Your task to perform on an android device: turn on notifications settings in the gmail app Image 0: 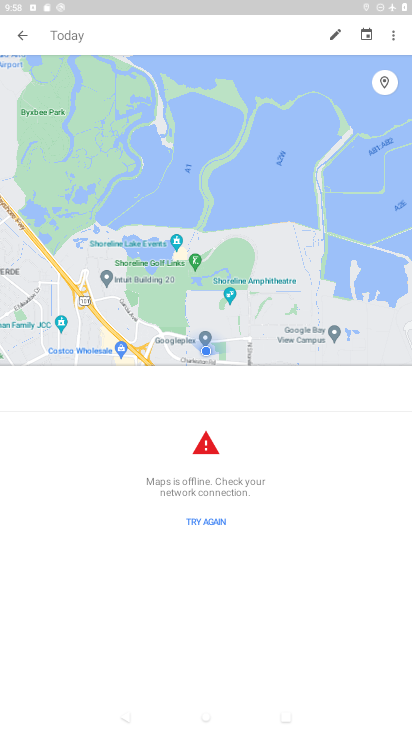
Step 0: press home button
Your task to perform on an android device: turn on notifications settings in the gmail app Image 1: 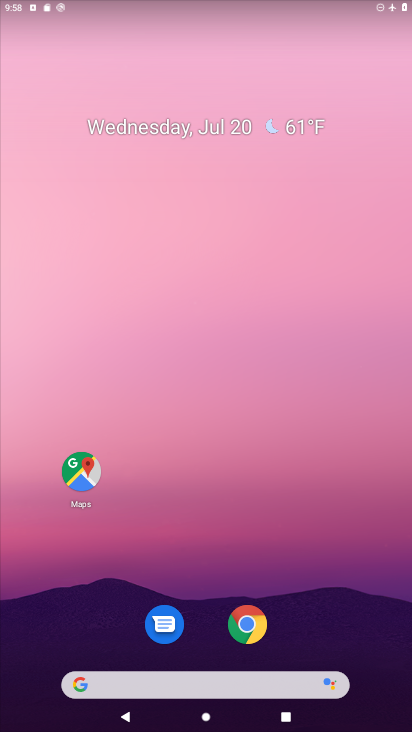
Step 1: drag from (209, 594) to (228, 171)
Your task to perform on an android device: turn on notifications settings in the gmail app Image 2: 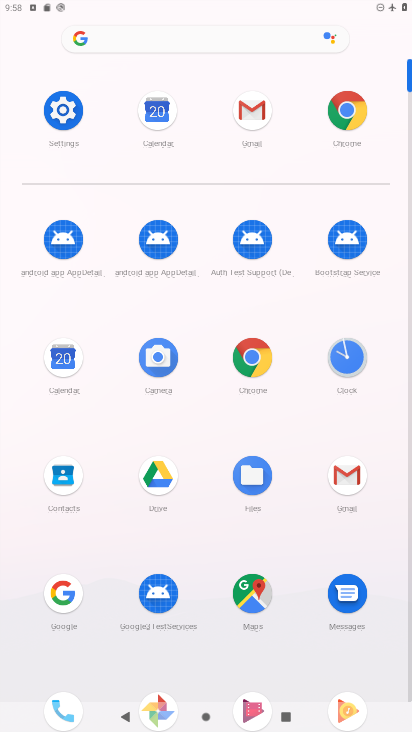
Step 2: click (251, 132)
Your task to perform on an android device: turn on notifications settings in the gmail app Image 3: 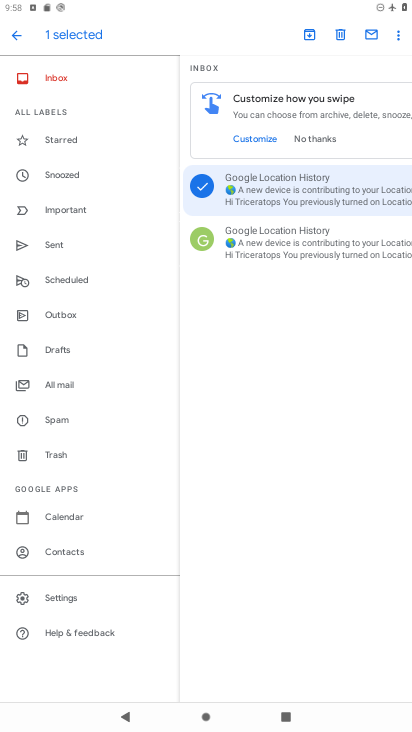
Step 3: click (74, 605)
Your task to perform on an android device: turn on notifications settings in the gmail app Image 4: 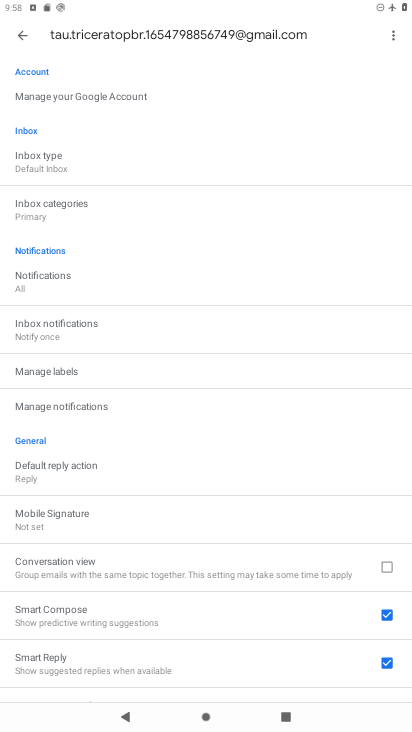
Step 4: click (68, 411)
Your task to perform on an android device: turn on notifications settings in the gmail app Image 5: 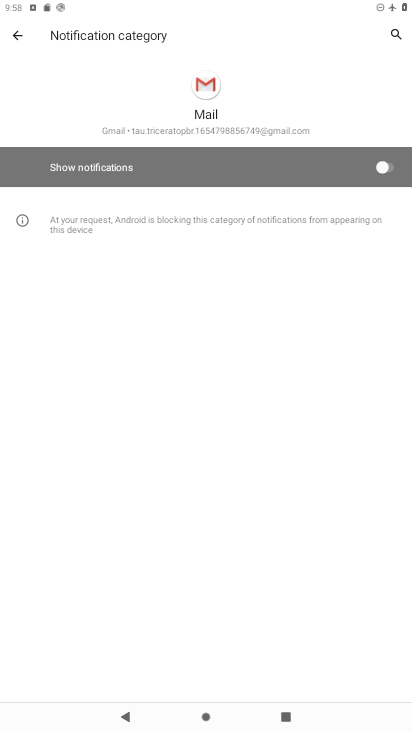
Step 5: click (381, 165)
Your task to perform on an android device: turn on notifications settings in the gmail app Image 6: 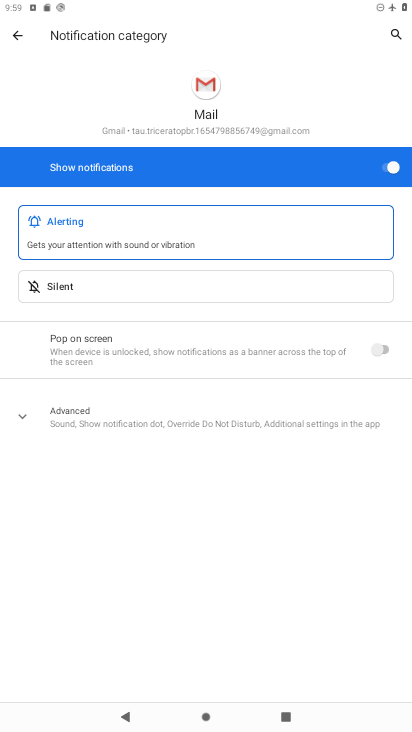
Step 6: task complete